Your task to perform on an android device: Open the calendar app, open the side menu, and click the "Day" option Image 0: 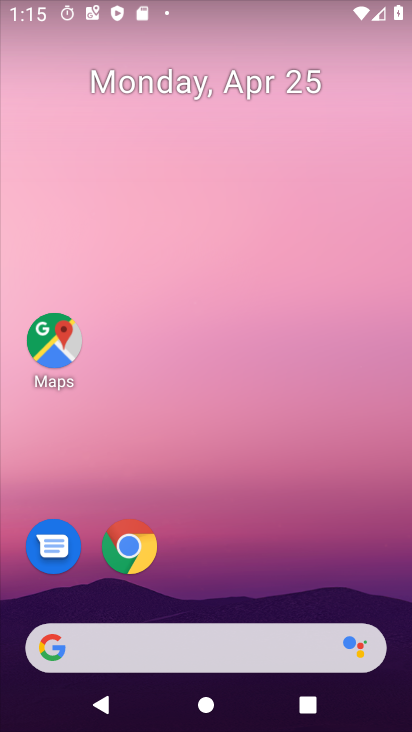
Step 0: drag from (219, 597) to (401, 414)
Your task to perform on an android device: Open the calendar app, open the side menu, and click the "Day" option Image 1: 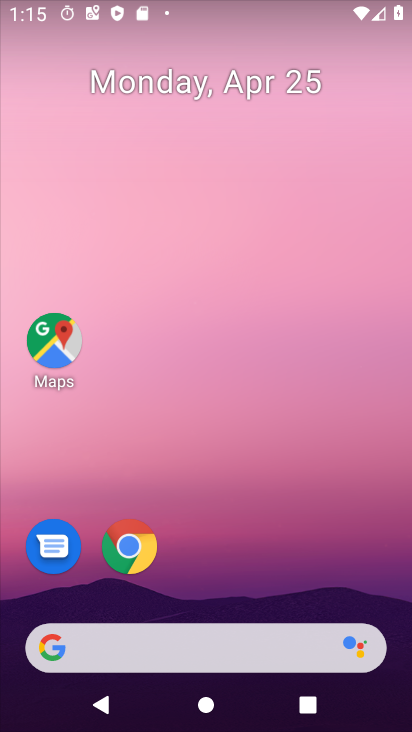
Step 1: drag from (188, 613) to (190, 31)
Your task to perform on an android device: Open the calendar app, open the side menu, and click the "Day" option Image 2: 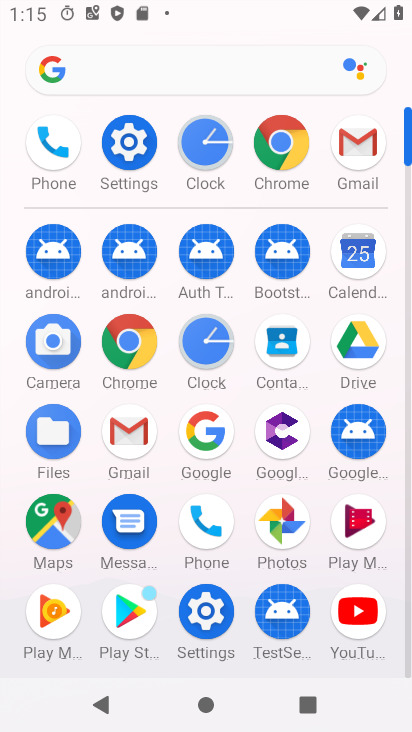
Step 2: click (345, 264)
Your task to perform on an android device: Open the calendar app, open the side menu, and click the "Day" option Image 3: 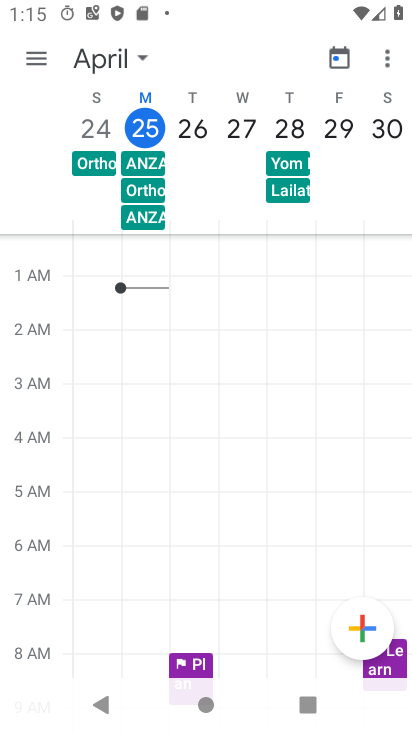
Step 3: click (36, 62)
Your task to perform on an android device: Open the calendar app, open the side menu, and click the "Day" option Image 4: 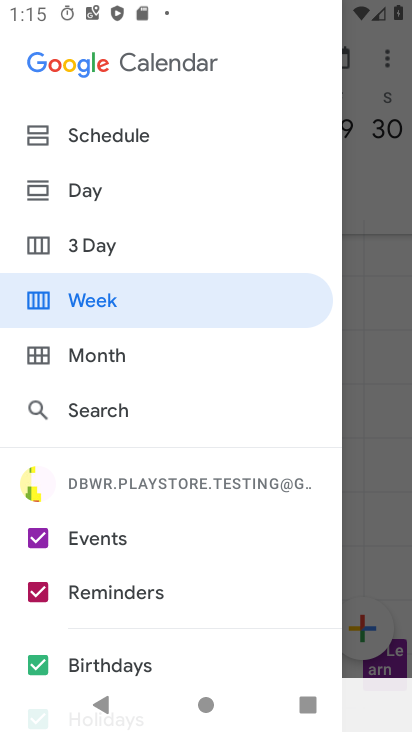
Step 4: click (99, 191)
Your task to perform on an android device: Open the calendar app, open the side menu, and click the "Day" option Image 5: 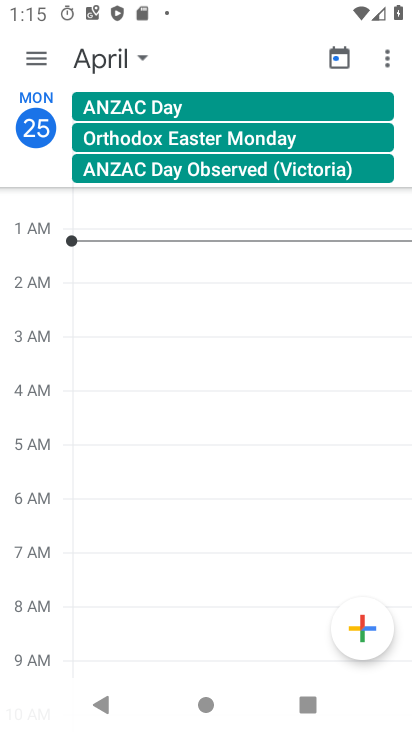
Step 5: task complete